Your task to perform on an android device: Open Maps and search for coffee Image 0: 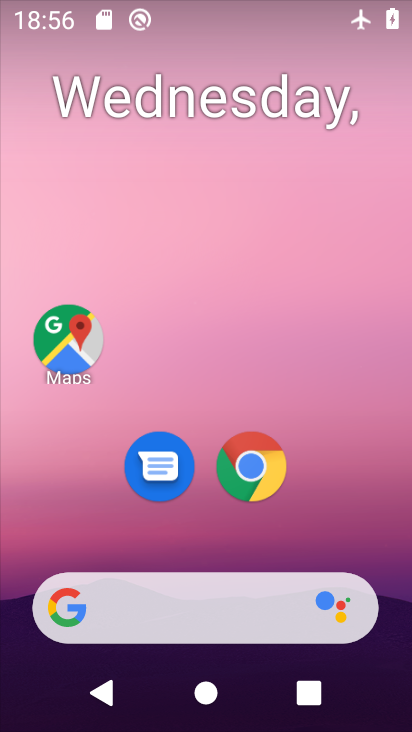
Step 0: click (62, 335)
Your task to perform on an android device: Open Maps and search for coffee Image 1: 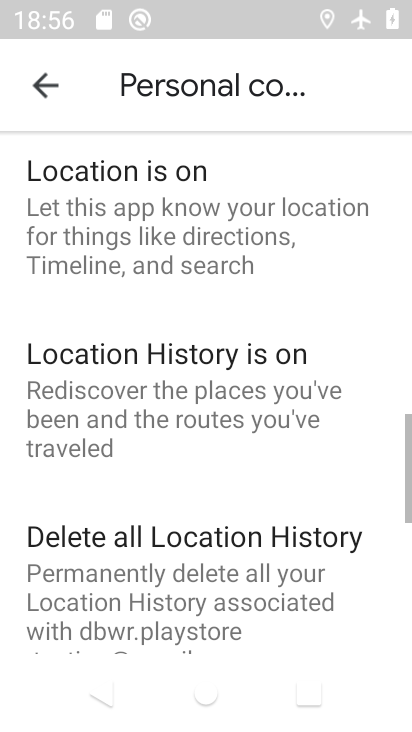
Step 1: click (39, 81)
Your task to perform on an android device: Open Maps and search for coffee Image 2: 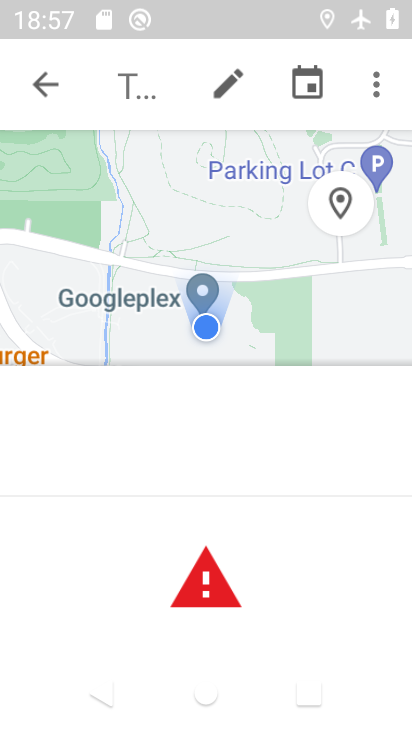
Step 2: click (50, 84)
Your task to perform on an android device: Open Maps and search for coffee Image 3: 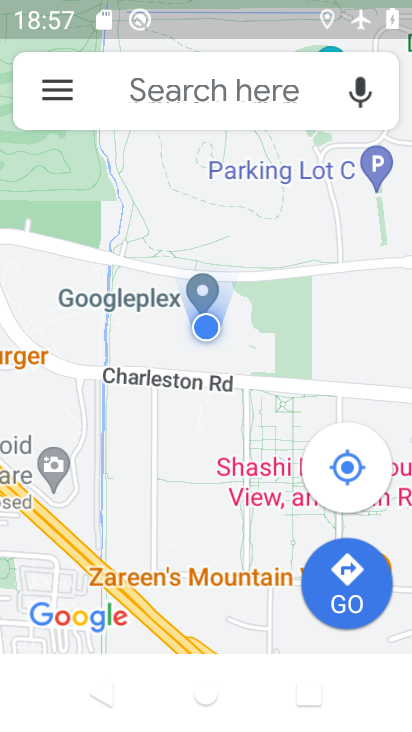
Step 3: click (151, 105)
Your task to perform on an android device: Open Maps and search for coffee Image 4: 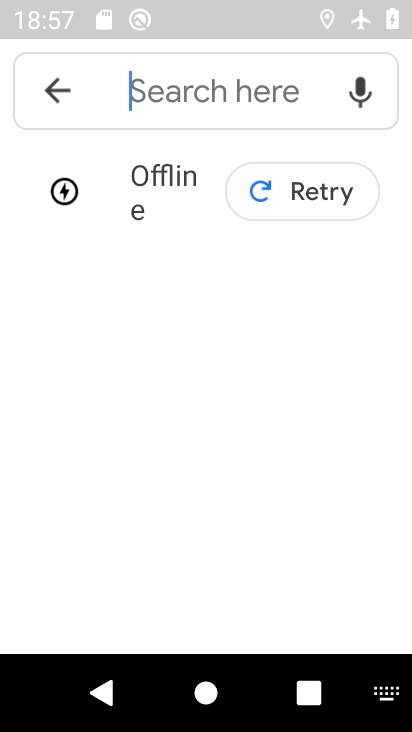
Step 4: type "coffee"
Your task to perform on an android device: Open Maps and search for coffee Image 5: 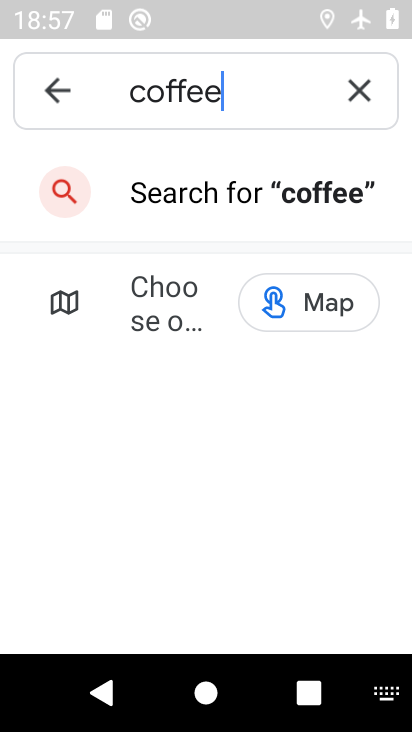
Step 5: task complete